Your task to perform on an android device: turn off notifications settings in the gmail app Image 0: 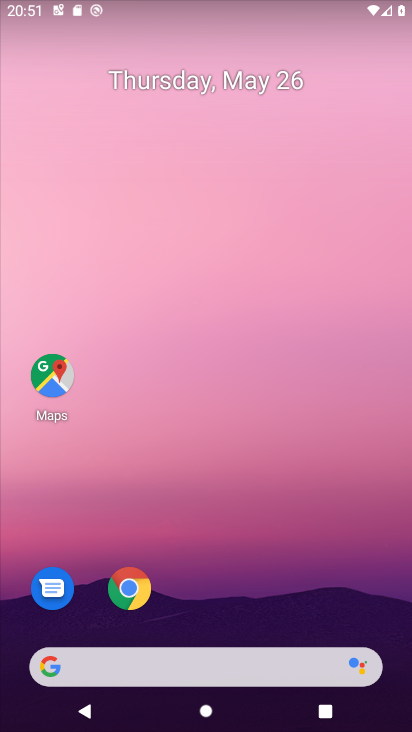
Step 0: drag from (256, 612) to (249, 0)
Your task to perform on an android device: turn off notifications settings in the gmail app Image 1: 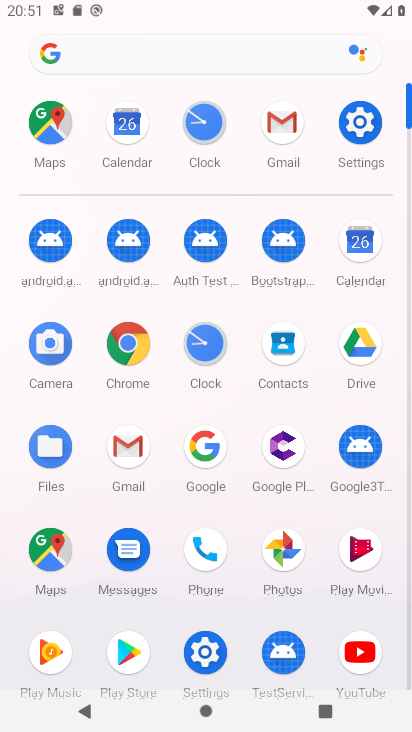
Step 1: click (129, 447)
Your task to perform on an android device: turn off notifications settings in the gmail app Image 2: 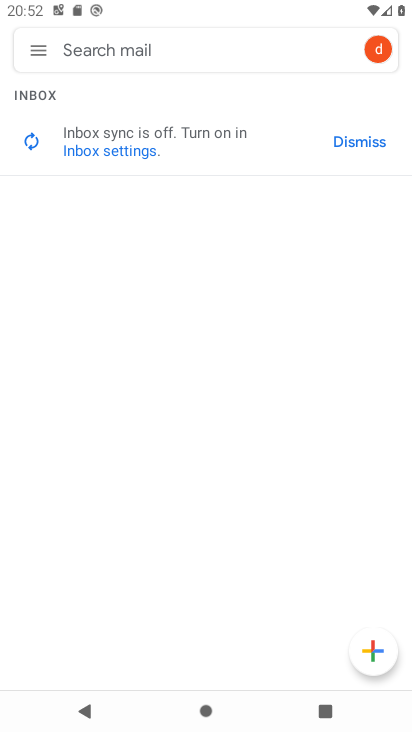
Step 2: click (49, 49)
Your task to perform on an android device: turn off notifications settings in the gmail app Image 3: 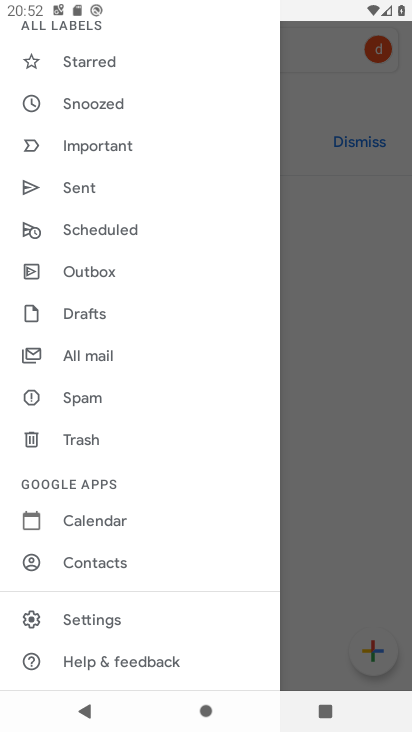
Step 3: click (120, 615)
Your task to perform on an android device: turn off notifications settings in the gmail app Image 4: 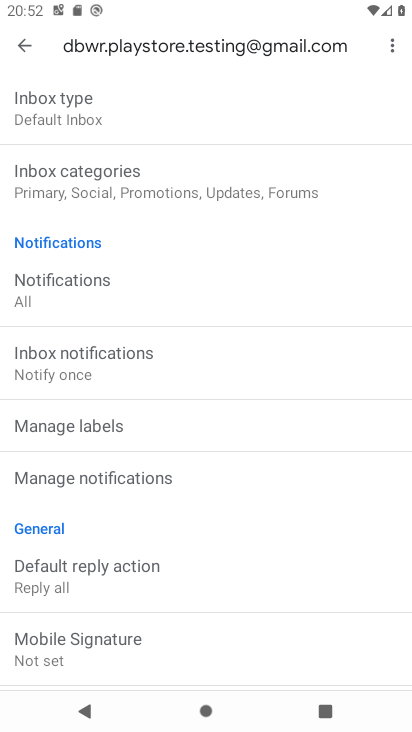
Step 4: click (77, 475)
Your task to perform on an android device: turn off notifications settings in the gmail app Image 5: 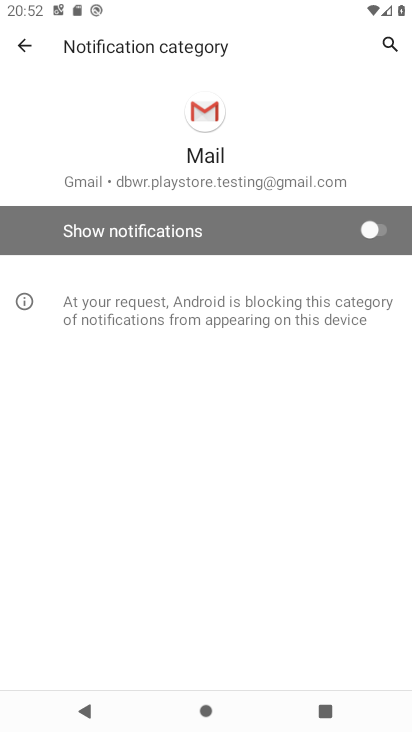
Step 5: task complete